Your task to perform on an android device: delete location history Image 0: 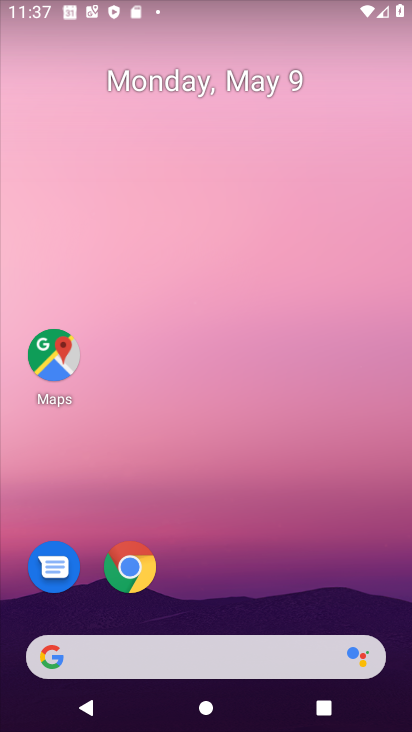
Step 0: drag from (233, 654) to (243, 74)
Your task to perform on an android device: delete location history Image 1: 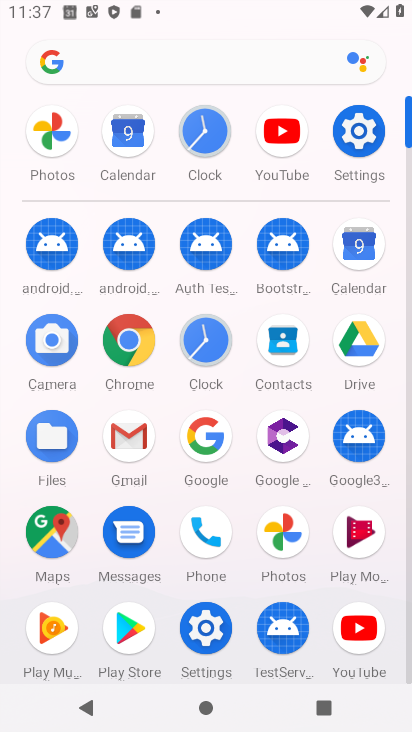
Step 1: click (65, 524)
Your task to perform on an android device: delete location history Image 2: 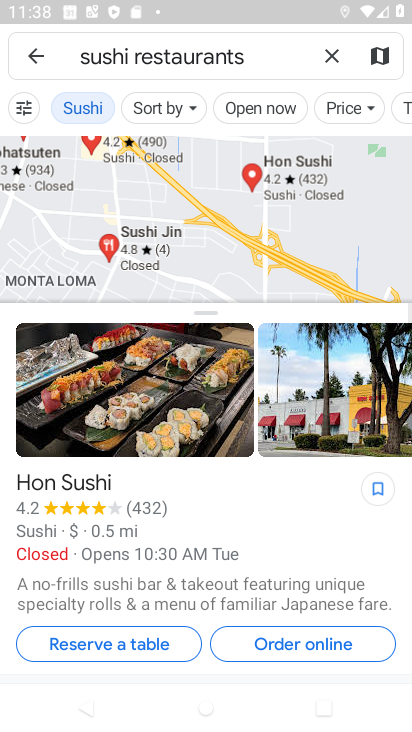
Step 2: click (40, 62)
Your task to perform on an android device: delete location history Image 3: 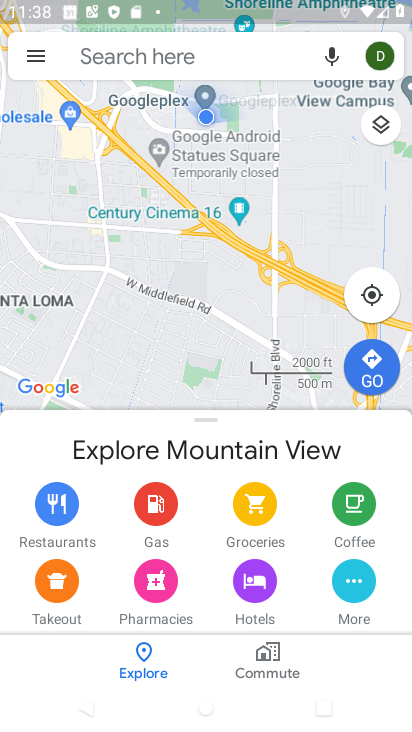
Step 3: click (40, 62)
Your task to perform on an android device: delete location history Image 4: 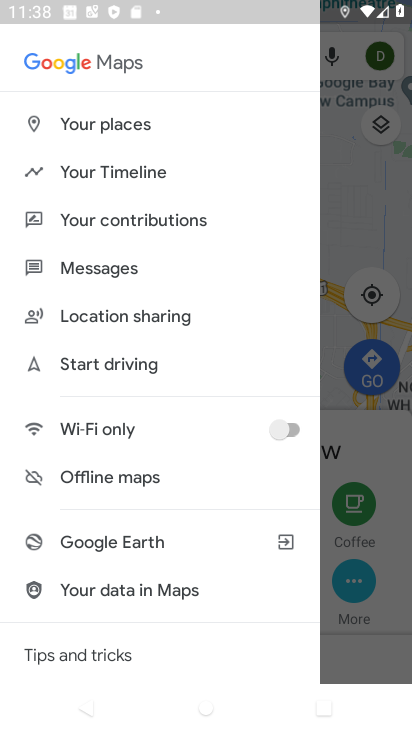
Step 4: click (109, 175)
Your task to perform on an android device: delete location history Image 5: 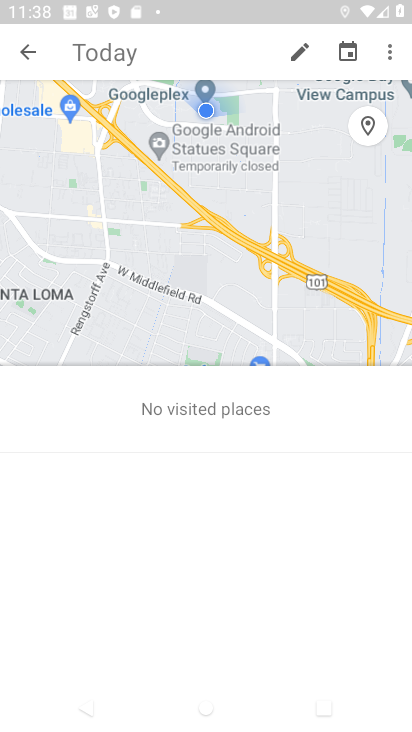
Step 5: click (379, 55)
Your task to perform on an android device: delete location history Image 6: 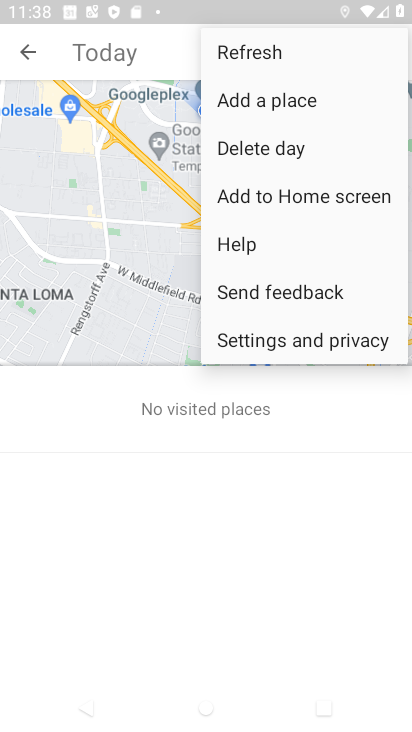
Step 6: click (270, 352)
Your task to perform on an android device: delete location history Image 7: 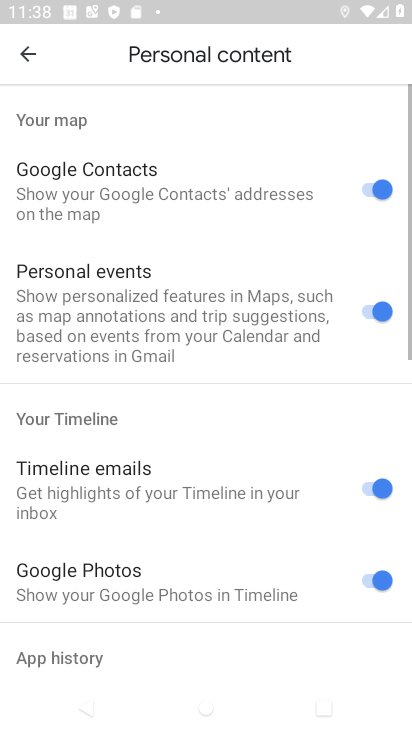
Step 7: drag from (221, 617) to (257, 160)
Your task to perform on an android device: delete location history Image 8: 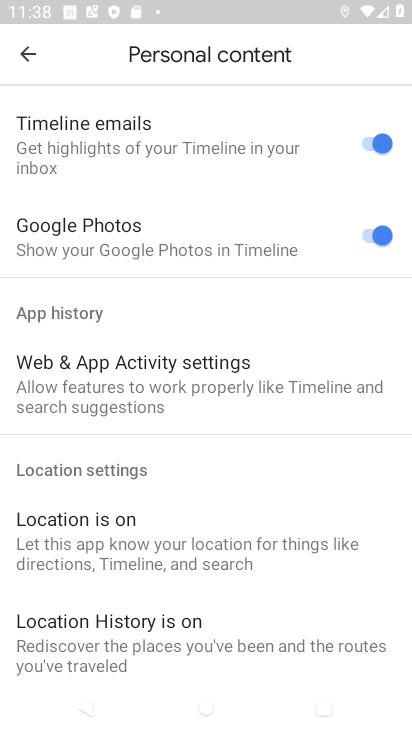
Step 8: drag from (183, 633) to (288, 157)
Your task to perform on an android device: delete location history Image 9: 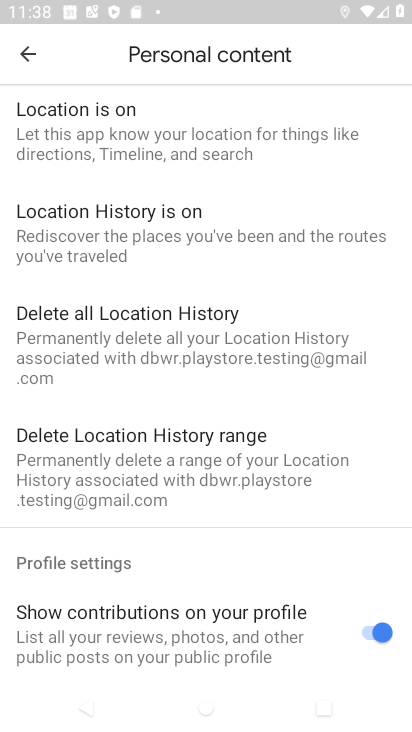
Step 9: click (169, 356)
Your task to perform on an android device: delete location history Image 10: 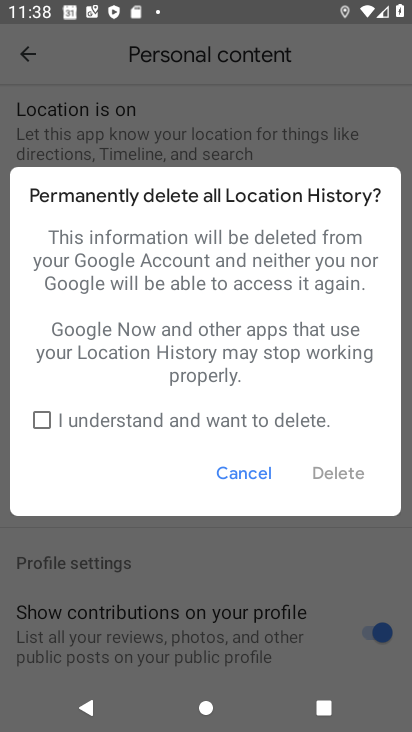
Step 10: click (159, 429)
Your task to perform on an android device: delete location history Image 11: 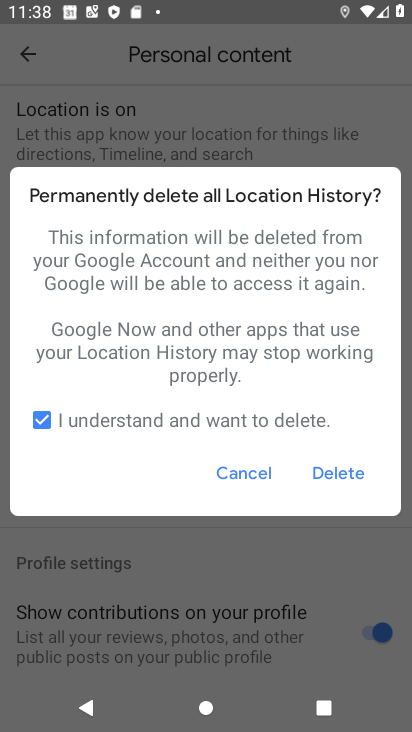
Step 11: click (336, 479)
Your task to perform on an android device: delete location history Image 12: 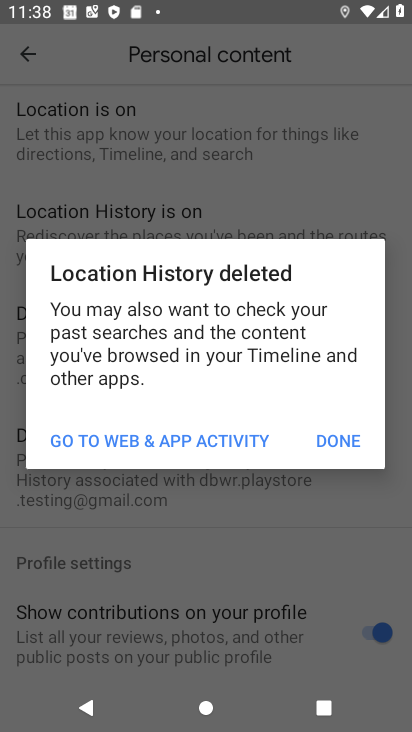
Step 12: task complete